Your task to perform on an android device: star an email in the gmail app Image 0: 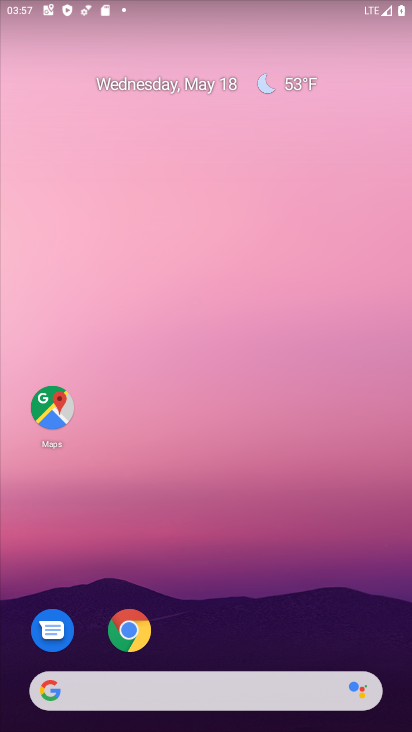
Step 0: drag from (195, 725) to (222, 128)
Your task to perform on an android device: star an email in the gmail app Image 1: 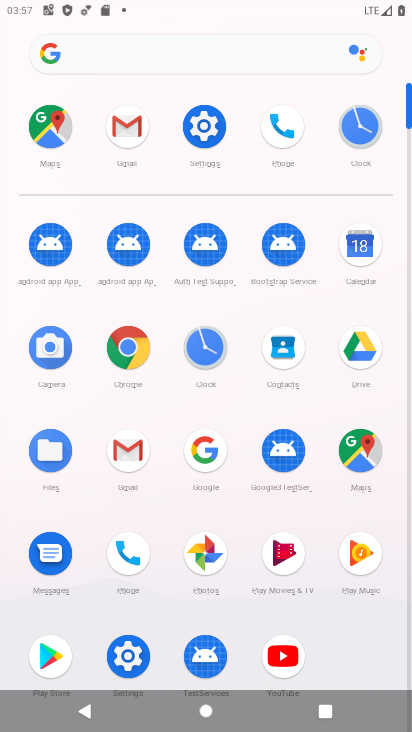
Step 1: click (133, 446)
Your task to perform on an android device: star an email in the gmail app Image 2: 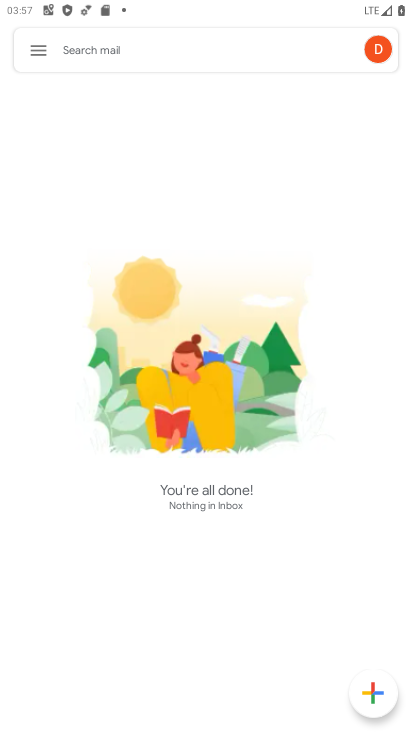
Step 2: task complete